Your task to perform on an android device: open a bookmark in the chrome app Image 0: 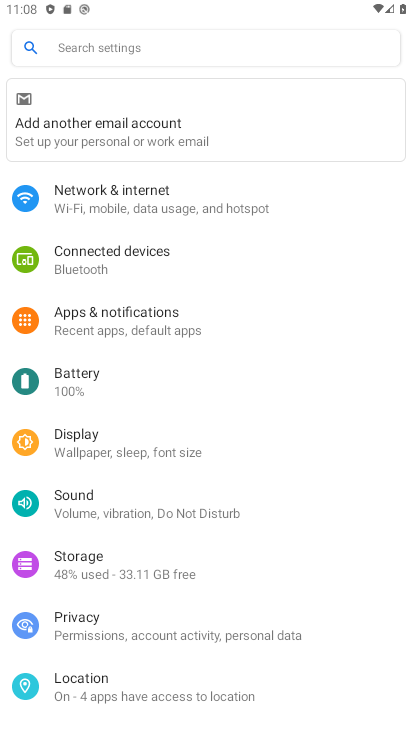
Step 0: press home button
Your task to perform on an android device: open a bookmark in the chrome app Image 1: 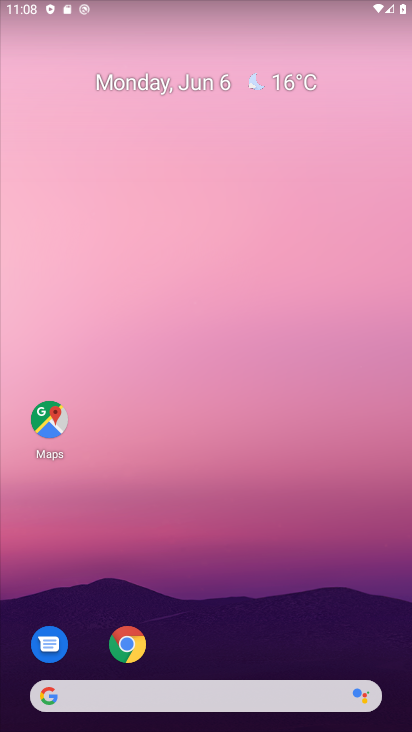
Step 1: click (114, 641)
Your task to perform on an android device: open a bookmark in the chrome app Image 2: 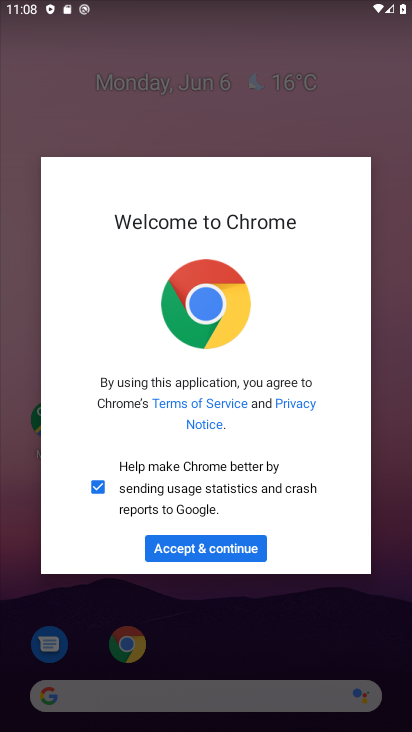
Step 2: click (216, 551)
Your task to perform on an android device: open a bookmark in the chrome app Image 3: 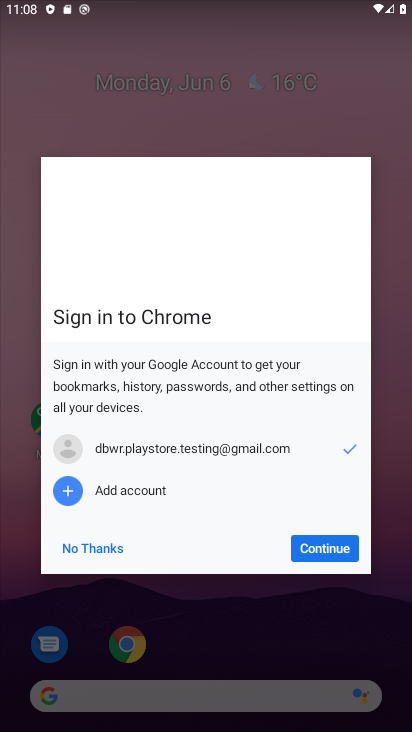
Step 3: click (101, 556)
Your task to perform on an android device: open a bookmark in the chrome app Image 4: 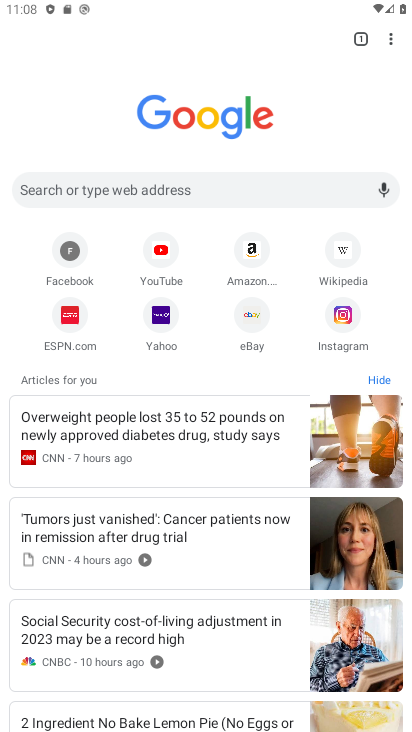
Step 4: click (389, 38)
Your task to perform on an android device: open a bookmark in the chrome app Image 5: 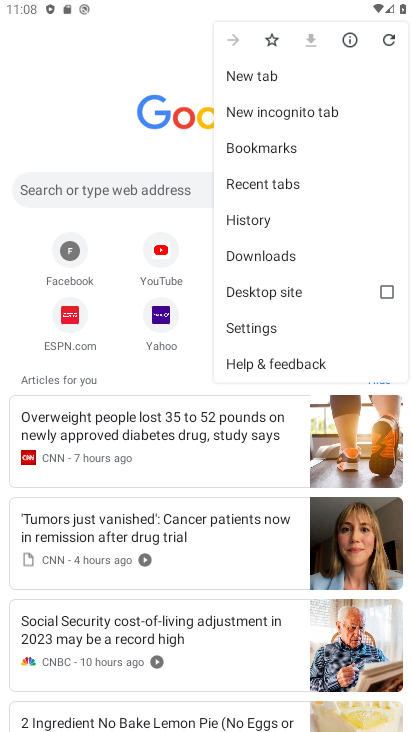
Step 5: click (274, 141)
Your task to perform on an android device: open a bookmark in the chrome app Image 6: 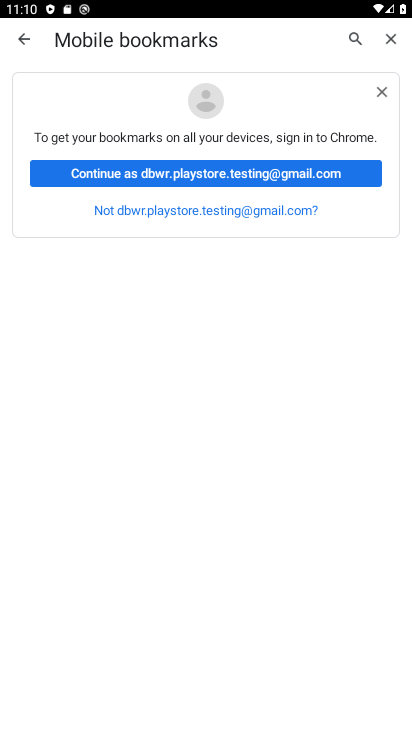
Step 6: click (312, 174)
Your task to perform on an android device: open a bookmark in the chrome app Image 7: 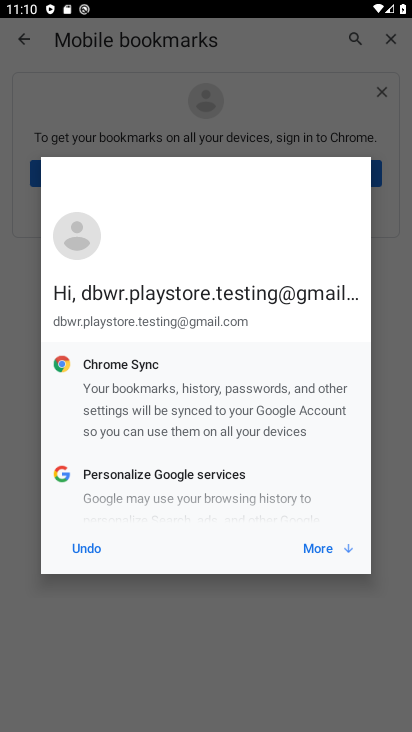
Step 7: click (328, 552)
Your task to perform on an android device: open a bookmark in the chrome app Image 8: 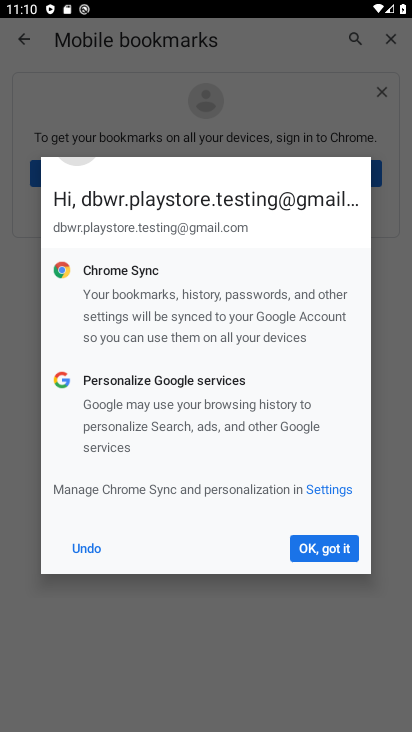
Step 8: click (328, 550)
Your task to perform on an android device: open a bookmark in the chrome app Image 9: 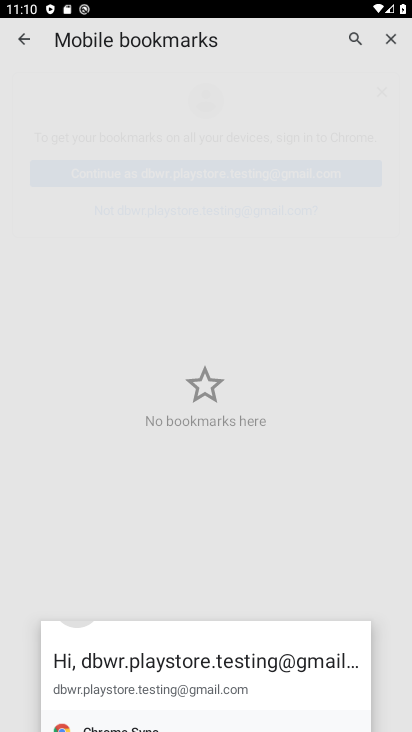
Step 9: click (328, 550)
Your task to perform on an android device: open a bookmark in the chrome app Image 10: 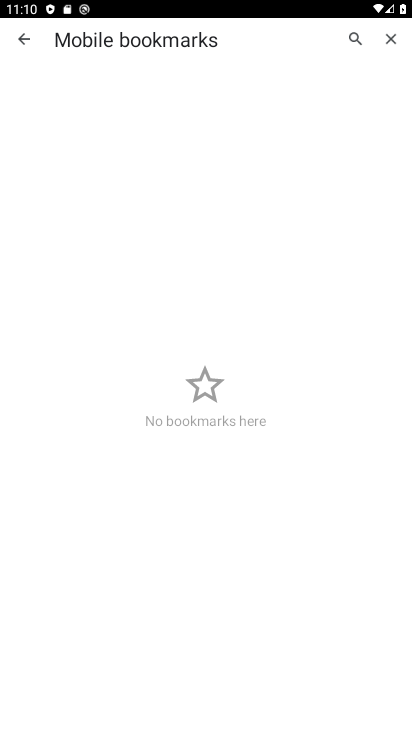
Step 10: task complete